Your task to perform on an android device: Clear the shopping cart on newegg. Search for usb-c to usb-a on newegg, select the first entry, add it to the cart, then select checkout. Image 0: 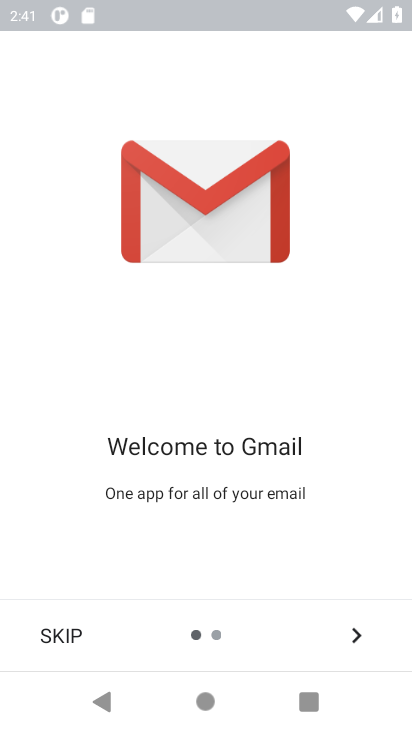
Step 0: press home button
Your task to perform on an android device: Clear the shopping cart on newegg. Search for usb-c to usb-a on newegg, select the first entry, add it to the cart, then select checkout. Image 1: 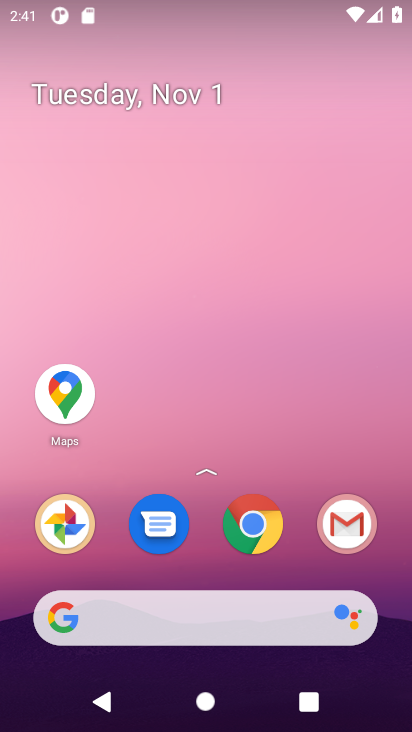
Step 1: click (254, 524)
Your task to perform on an android device: Clear the shopping cart on newegg. Search for usb-c to usb-a on newegg, select the first entry, add it to the cart, then select checkout. Image 2: 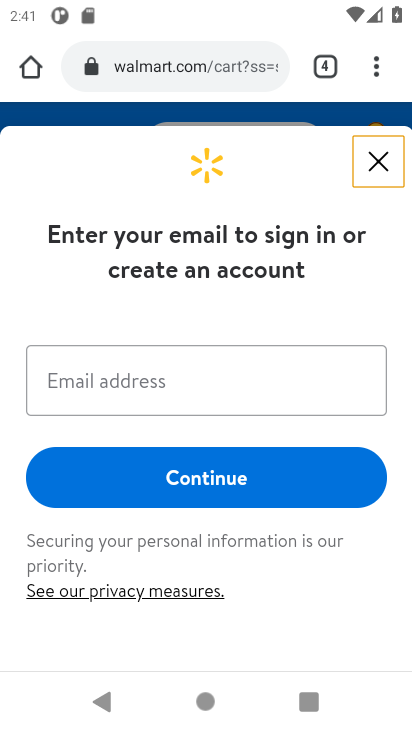
Step 2: click (209, 46)
Your task to perform on an android device: Clear the shopping cart on newegg. Search for usb-c to usb-a on newegg, select the first entry, add it to the cart, then select checkout. Image 3: 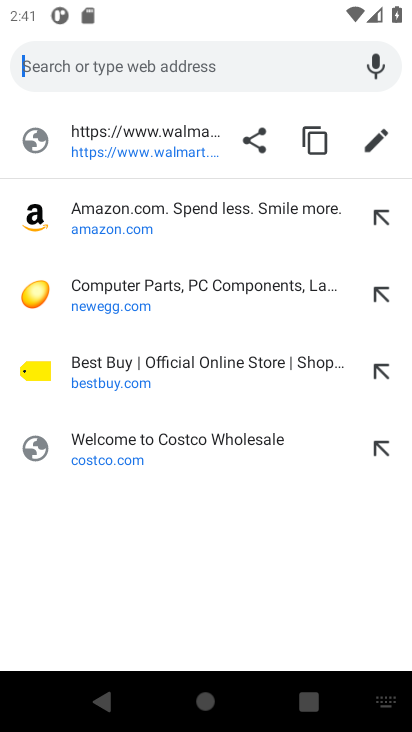
Step 3: type "newegg"
Your task to perform on an android device: Clear the shopping cart on newegg. Search for usb-c to usb-a on newegg, select the first entry, add it to the cart, then select checkout. Image 4: 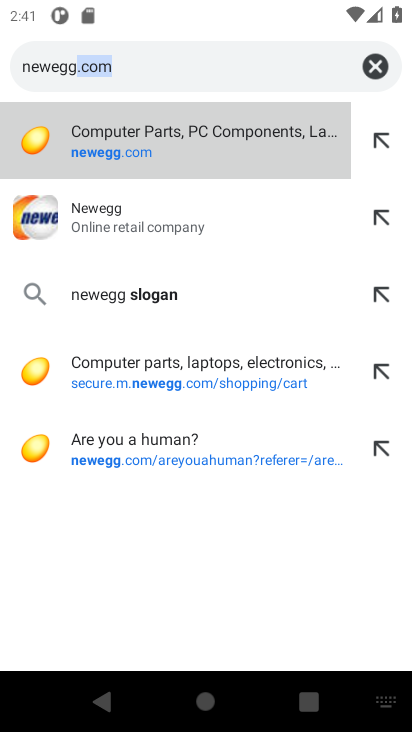
Step 4: click (91, 136)
Your task to perform on an android device: Clear the shopping cart on newegg. Search for usb-c to usb-a on newegg, select the first entry, add it to the cart, then select checkout. Image 5: 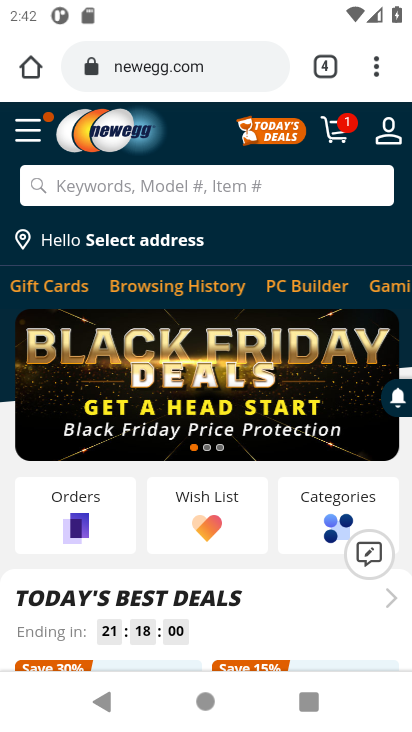
Step 5: click (334, 128)
Your task to perform on an android device: Clear the shopping cart on newegg. Search for usb-c to usb-a on newegg, select the first entry, add it to the cart, then select checkout. Image 6: 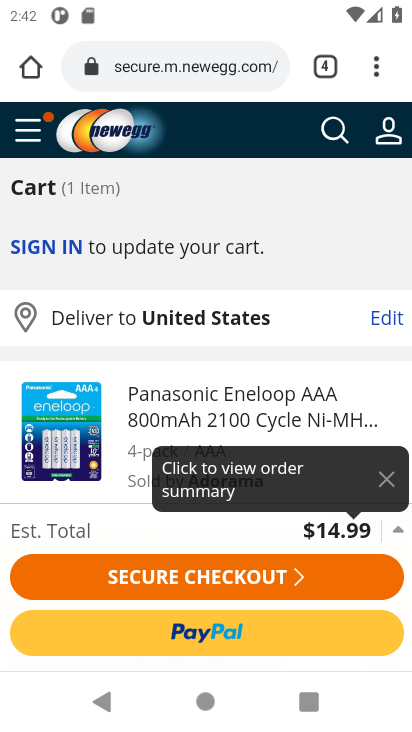
Step 6: drag from (188, 524) to (192, 213)
Your task to perform on an android device: Clear the shopping cart on newegg. Search for usb-c to usb-a on newegg, select the first entry, add it to the cart, then select checkout. Image 7: 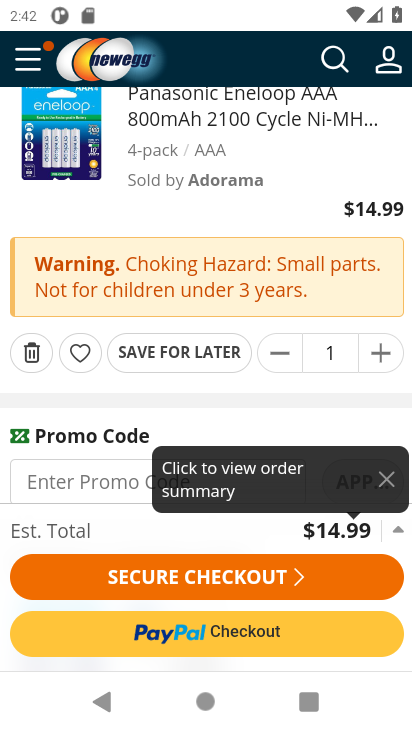
Step 7: click (31, 355)
Your task to perform on an android device: Clear the shopping cart on newegg. Search for usb-c to usb-a on newegg, select the first entry, add it to the cart, then select checkout. Image 8: 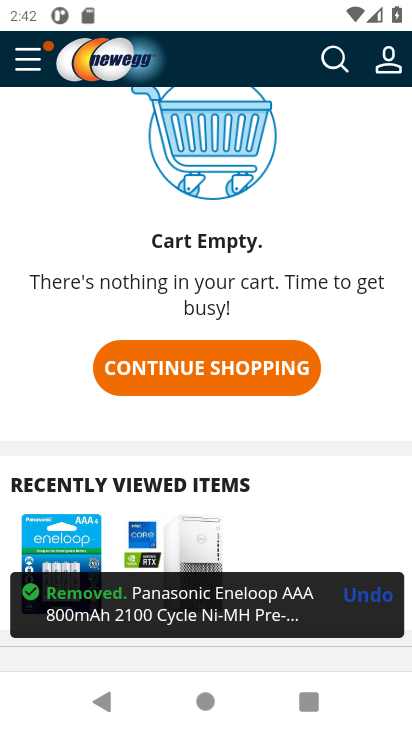
Step 8: click (206, 366)
Your task to perform on an android device: Clear the shopping cart on newegg. Search for usb-c to usb-a on newegg, select the first entry, add it to the cart, then select checkout. Image 9: 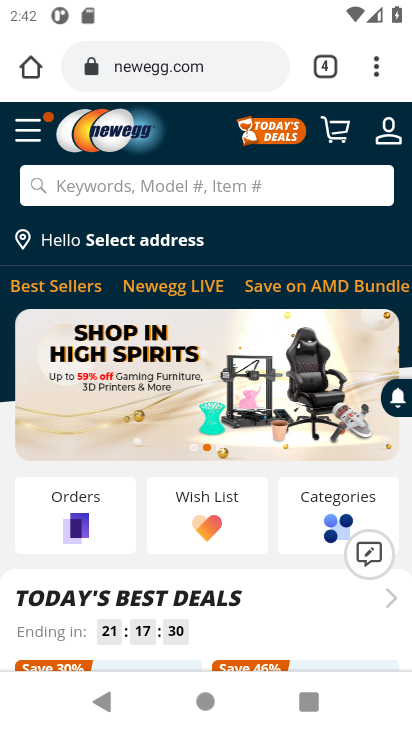
Step 9: click (85, 186)
Your task to perform on an android device: Clear the shopping cart on newegg. Search for usb-c to usb-a on newegg, select the first entry, add it to the cart, then select checkout. Image 10: 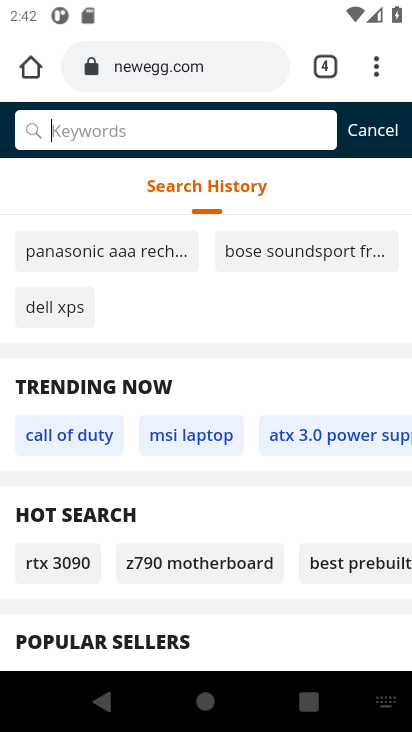
Step 10: type "usb-c to usb-a"
Your task to perform on an android device: Clear the shopping cart on newegg. Search for usb-c to usb-a on newegg, select the first entry, add it to the cart, then select checkout. Image 11: 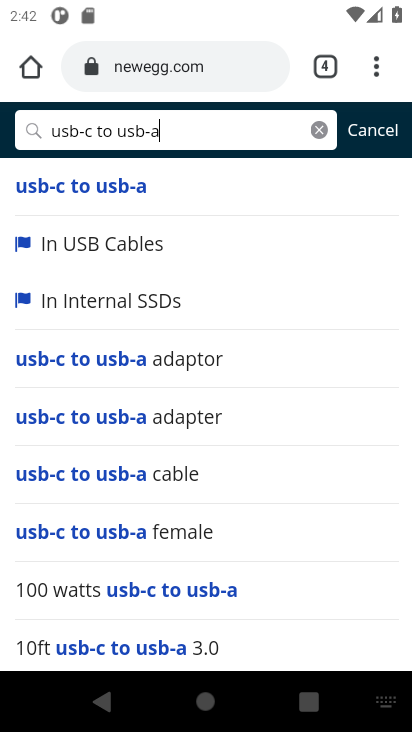
Step 11: click (43, 187)
Your task to perform on an android device: Clear the shopping cart on newegg. Search for usb-c to usb-a on newegg, select the first entry, add it to the cart, then select checkout. Image 12: 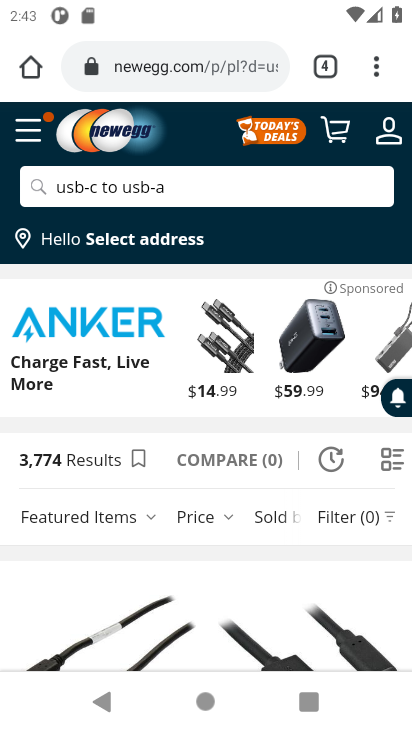
Step 12: drag from (220, 574) to (217, 240)
Your task to perform on an android device: Clear the shopping cart on newegg. Search for usb-c to usb-a on newegg, select the first entry, add it to the cart, then select checkout. Image 13: 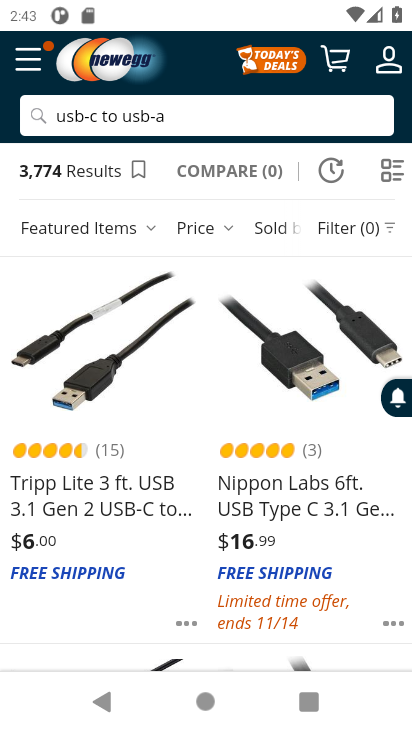
Step 13: click (87, 509)
Your task to perform on an android device: Clear the shopping cart on newegg. Search for usb-c to usb-a on newegg, select the first entry, add it to the cart, then select checkout. Image 14: 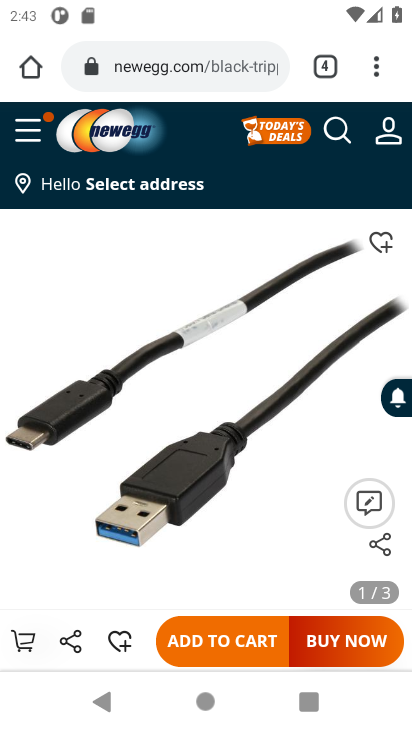
Step 14: click (220, 640)
Your task to perform on an android device: Clear the shopping cart on newegg. Search for usb-c to usb-a on newegg, select the first entry, add it to the cart, then select checkout. Image 15: 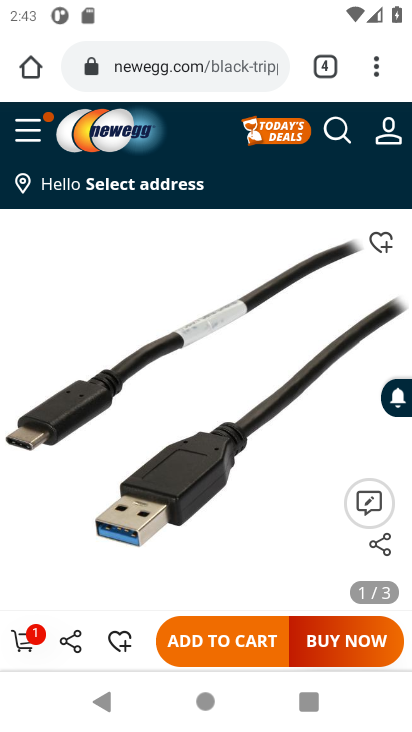
Step 15: click (22, 638)
Your task to perform on an android device: Clear the shopping cart on newegg. Search for usb-c to usb-a on newegg, select the first entry, add it to the cart, then select checkout. Image 16: 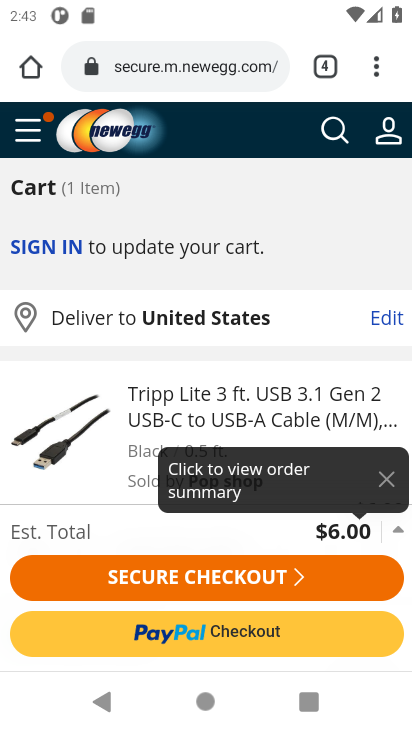
Step 16: click (233, 572)
Your task to perform on an android device: Clear the shopping cart on newegg. Search for usb-c to usb-a on newegg, select the first entry, add it to the cart, then select checkout. Image 17: 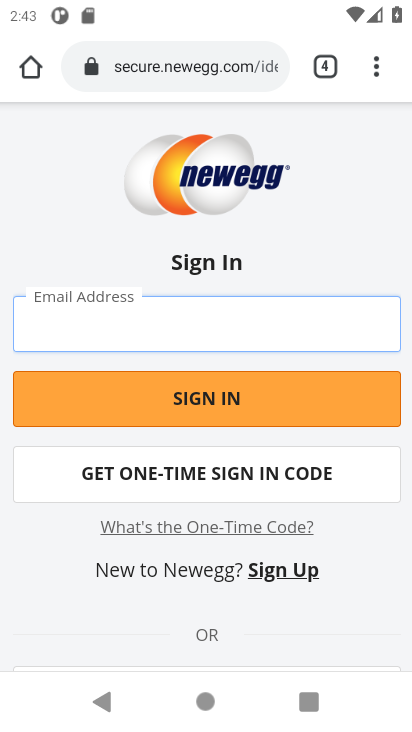
Step 17: task complete